Your task to perform on an android device: Set the phone to "Do not disturb". Image 0: 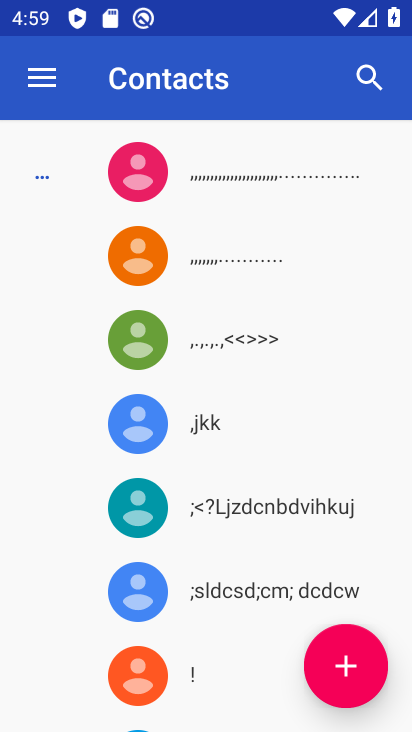
Step 0: press back button
Your task to perform on an android device: Set the phone to "Do not disturb". Image 1: 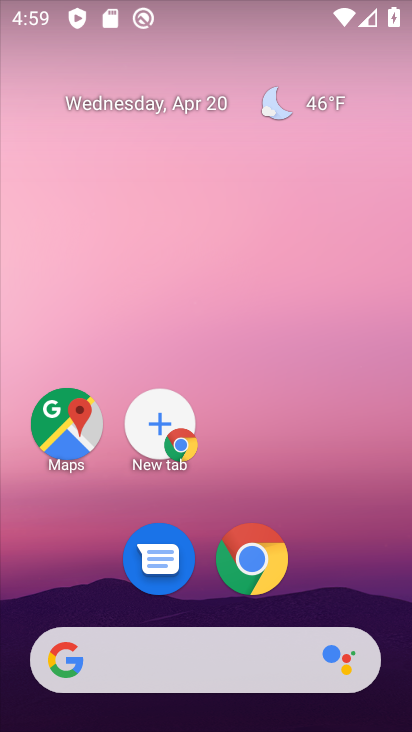
Step 1: drag from (334, 563) to (275, 171)
Your task to perform on an android device: Set the phone to "Do not disturb". Image 2: 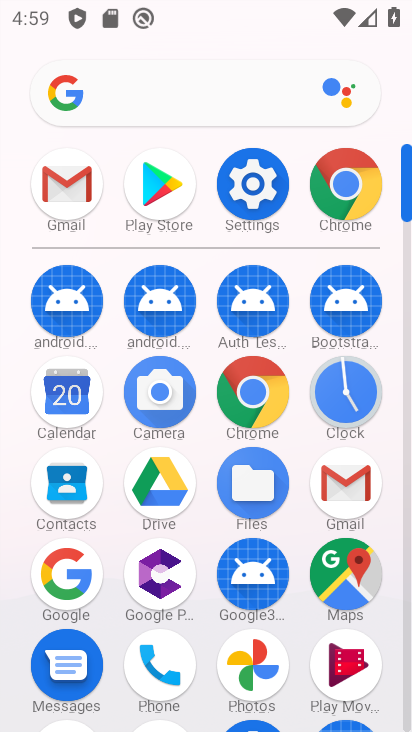
Step 2: click (260, 215)
Your task to perform on an android device: Set the phone to "Do not disturb". Image 3: 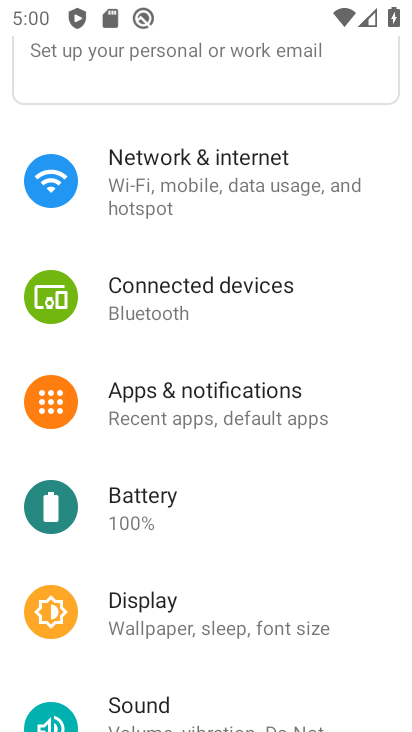
Step 3: click (198, 701)
Your task to perform on an android device: Set the phone to "Do not disturb". Image 4: 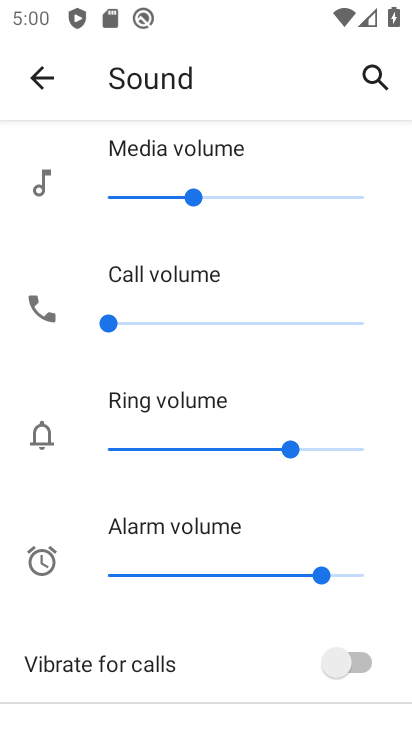
Step 4: drag from (236, 648) to (192, 143)
Your task to perform on an android device: Set the phone to "Do not disturb". Image 5: 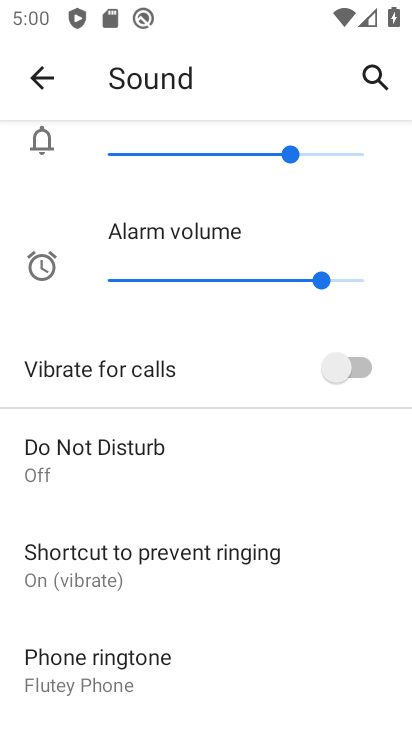
Step 5: click (173, 465)
Your task to perform on an android device: Set the phone to "Do not disturb". Image 6: 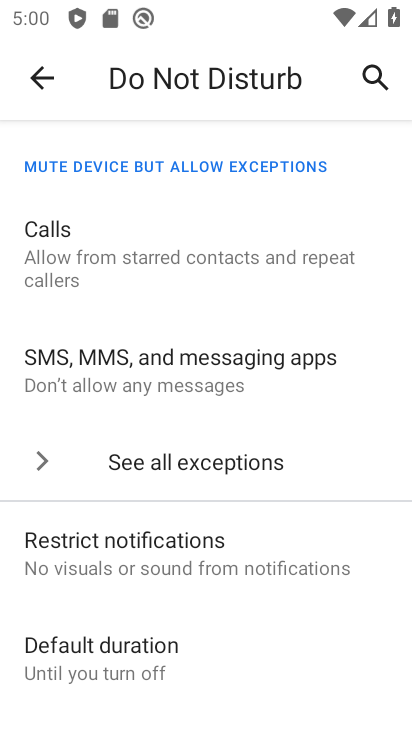
Step 6: drag from (241, 600) to (213, 53)
Your task to perform on an android device: Set the phone to "Do not disturb". Image 7: 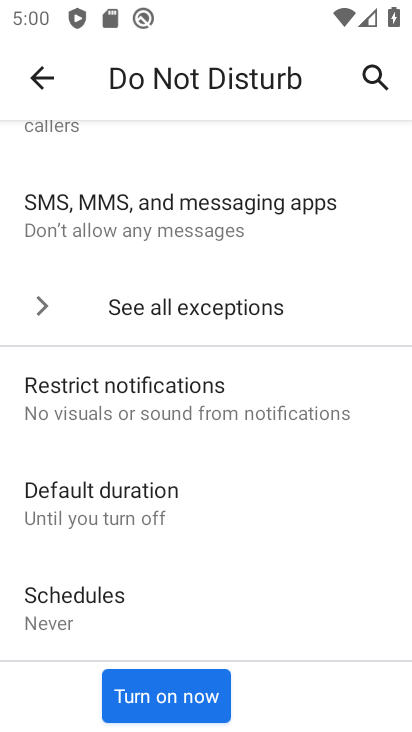
Step 7: click (185, 695)
Your task to perform on an android device: Set the phone to "Do not disturb". Image 8: 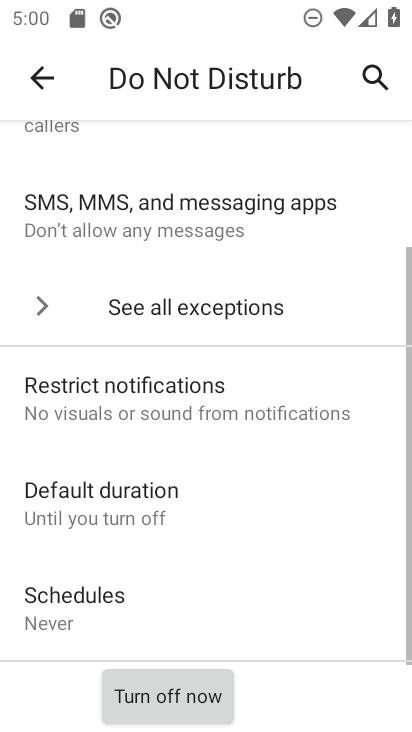
Step 8: task complete